Your task to perform on an android device: Open calendar and show me the third week of next month Image 0: 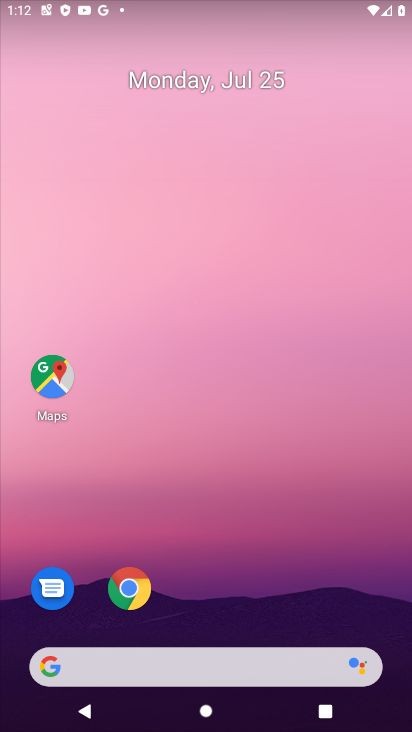
Step 0: drag from (200, 617) to (179, 175)
Your task to perform on an android device: Open calendar and show me the third week of next month Image 1: 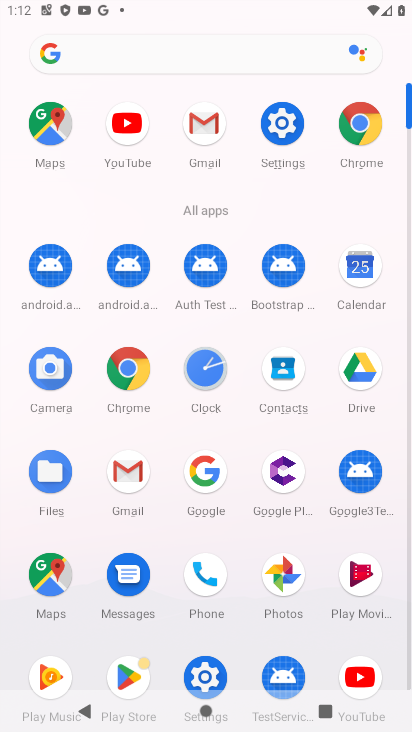
Step 1: click (353, 309)
Your task to perform on an android device: Open calendar and show me the third week of next month Image 2: 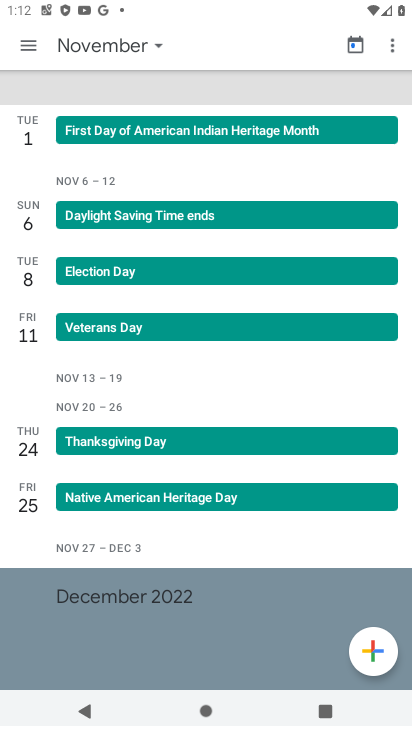
Step 2: click (35, 50)
Your task to perform on an android device: Open calendar and show me the third week of next month Image 3: 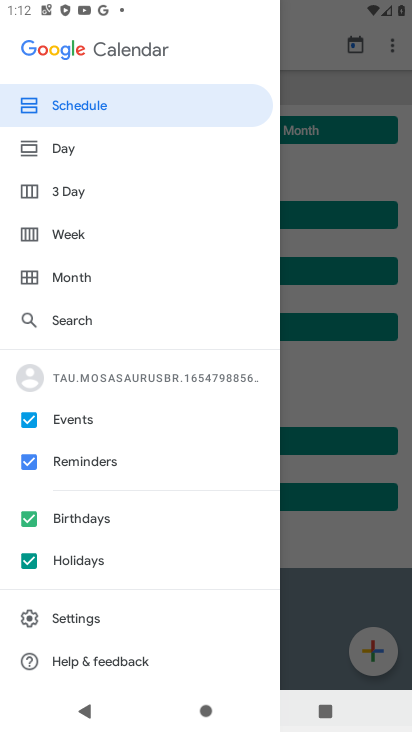
Step 3: click (58, 231)
Your task to perform on an android device: Open calendar and show me the third week of next month Image 4: 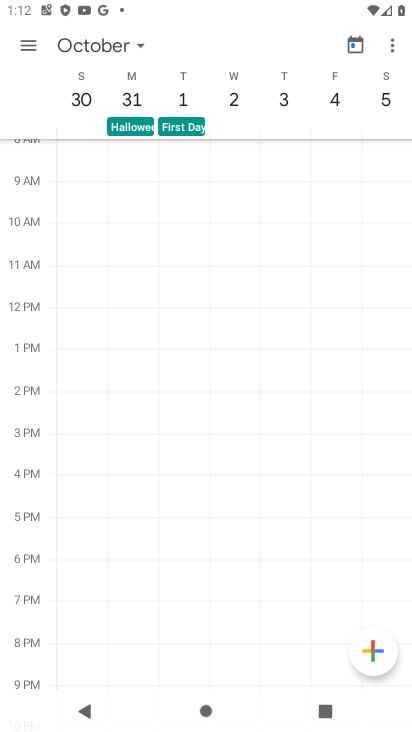
Step 4: click (110, 43)
Your task to perform on an android device: Open calendar and show me the third week of next month Image 5: 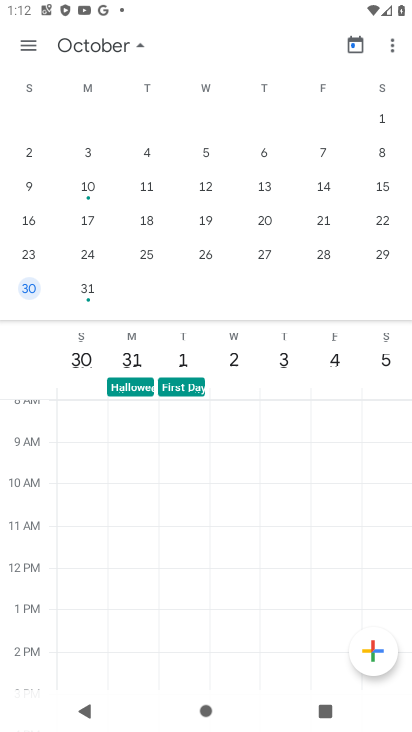
Step 5: drag from (50, 204) to (409, 183)
Your task to perform on an android device: Open calendar and show me the third week of next month Image 6: 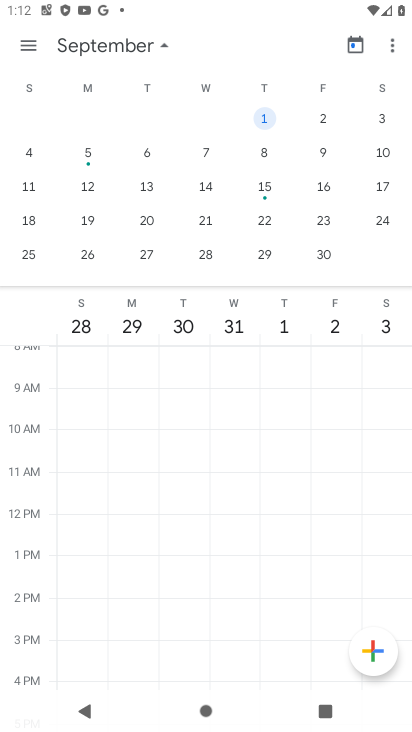
Step 6: drag from (28, 187) to (399, 191)
Your task to perform on an android device: Open calendar and show me the third week of next month Image 7: 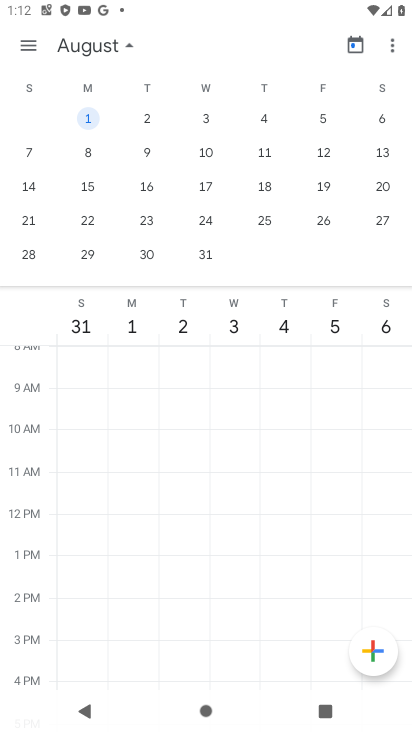
Step 7: click (26, 186)
Your task to perform on an android device: Open calendar and show me the third week of next month Image 8: 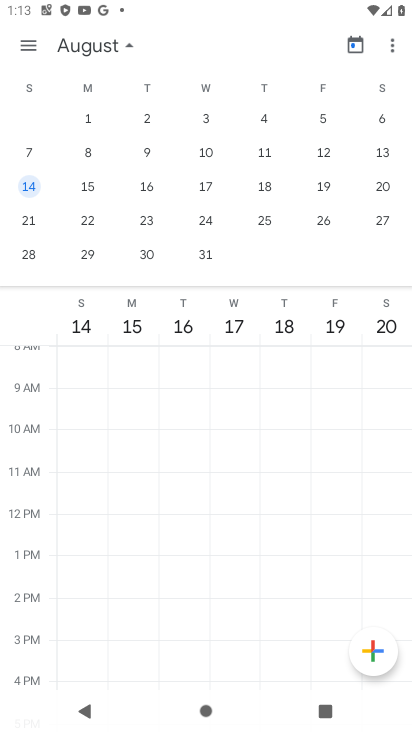
Step 8: task complete